Your task to perform on an android device: find photos in the google photos app Image 0: 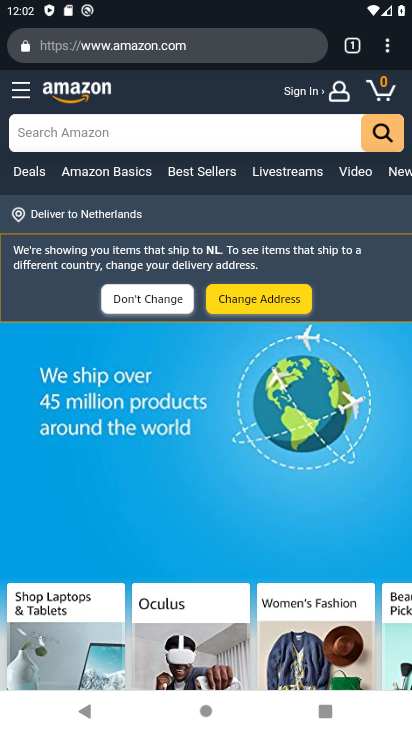
Step 0: press home button
Your task to perform on an android device: find photos in the google photos app Image 1: 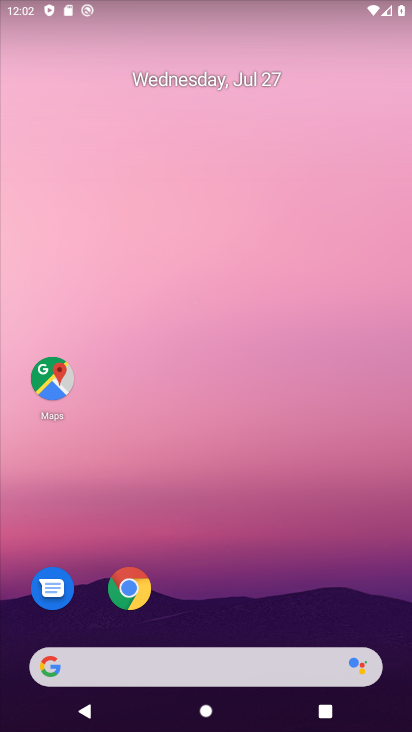
Step 1: drag from (23, 705) to (221, 153)
Your task to perform on an android device: find photos in the google photos app Image 2: 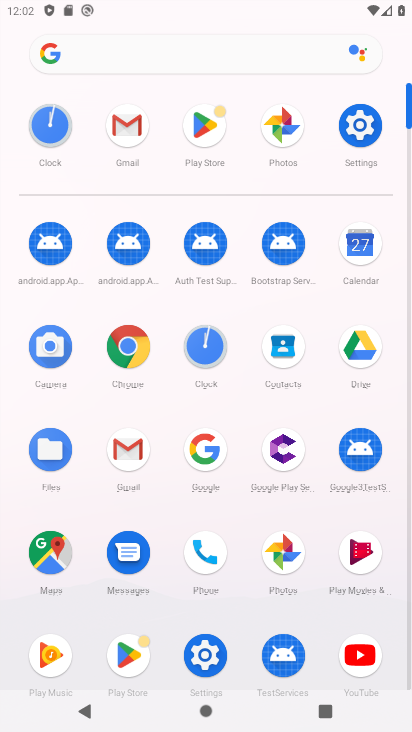
Step 2: click (285, 546)
Your task to perform on an android device: find photos in the google photos app Image 3: 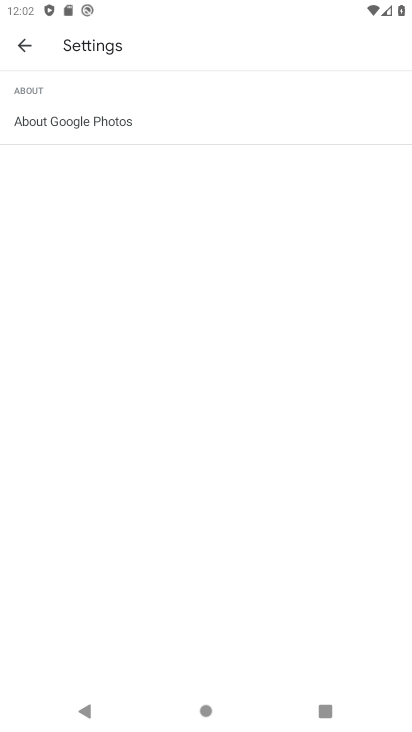
Step 3: click (18, 42)
Your task to perform on an android device: find photos in the google photos app Image 4: 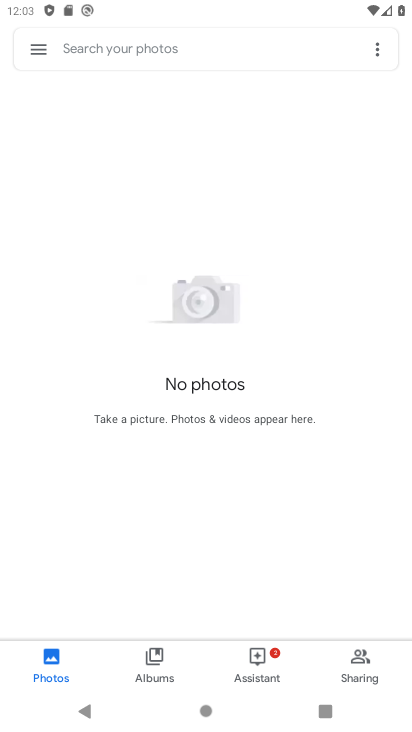
Step 4: task complete